Your task to perform on an android device: Search for Mexican restaurants on Maps Image 0: 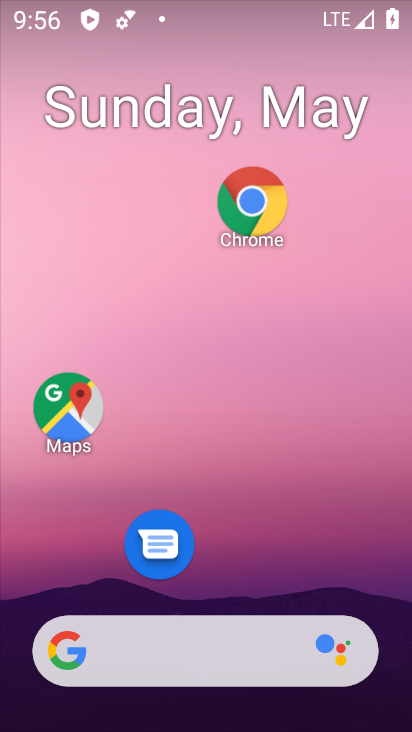
Step 0: drag from (277, 534) to (274, 28)
Your task to perform on an android device: Search for Mexican restaurants on Maps Image 1: 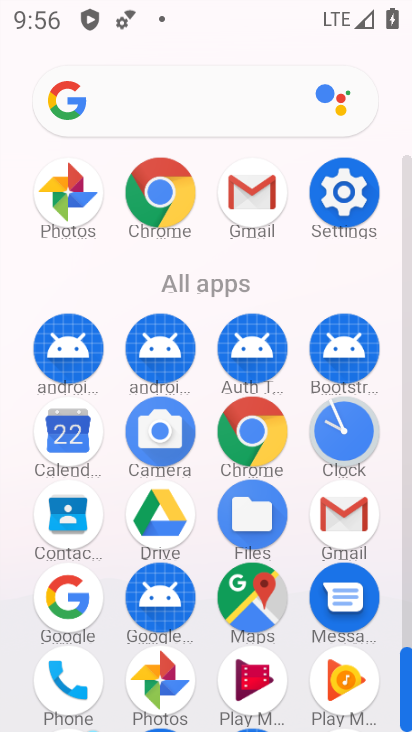
Step 1: click (252, 592)
Your task to perform on an android device: Search for Mexican restaurants on Maps Image 2: 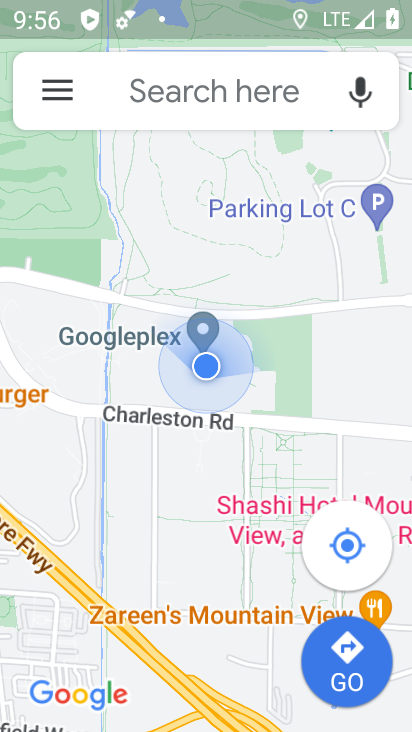
Step 2: click (193, 110)
Your task to perform on an android device: Search for Mexican restaurants on Maps Image 3: 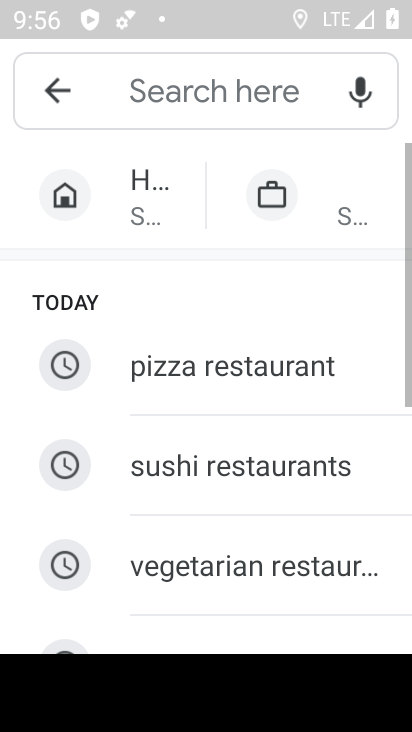
Step 3: drag from (209, 576) to (267, 174)
Your task to perform on an android device: Search for Mexican restaurants on Maps Image 4: 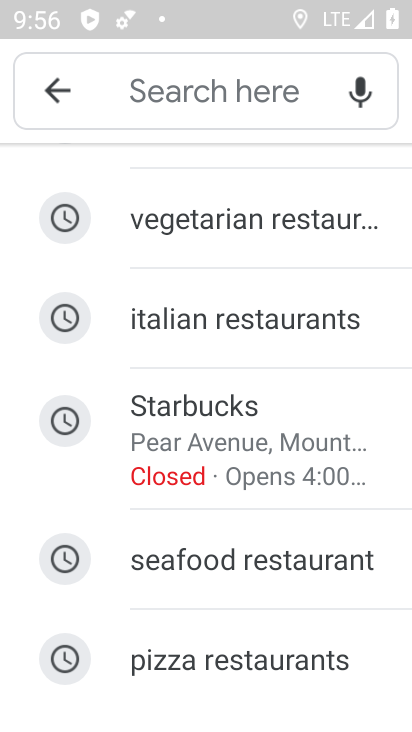
Step 4: drag from (223, 588) to (213, 200)
Your task to perform on an android device: Search for Mexican restaurants on Maps Image 5: 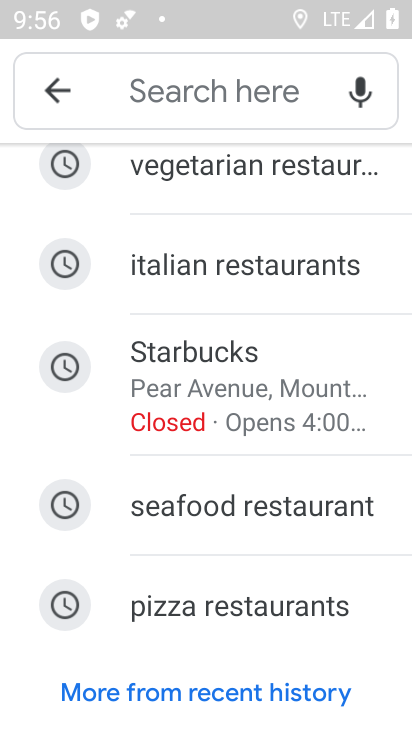
Step 5: drag from (224, 293) to (235, 626)
Your task to perform on an android device: Search for Mexican restaurants on Maps Image 6: 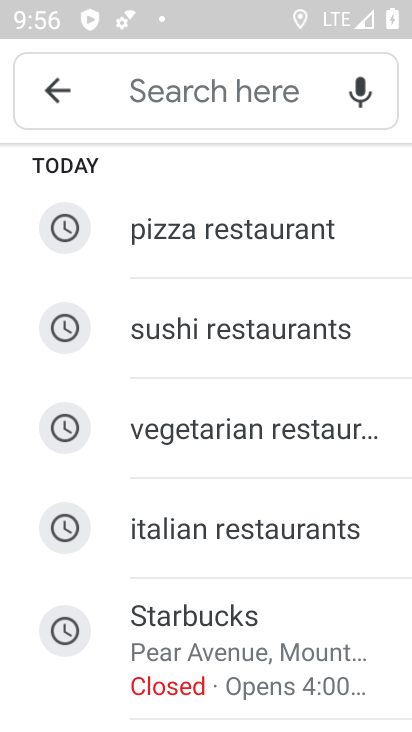
Step 6: click (151, 91)
Your task to perform on an android device: Search for Mexican restaurants on Maps Image 7: 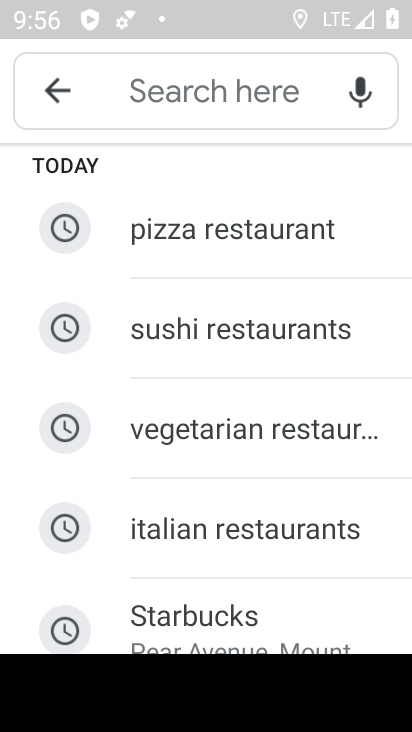
Step 7: type "mexican restaurents"
Your task to perform on an android device: Search for Mexican restaurants on Maps Image 8: 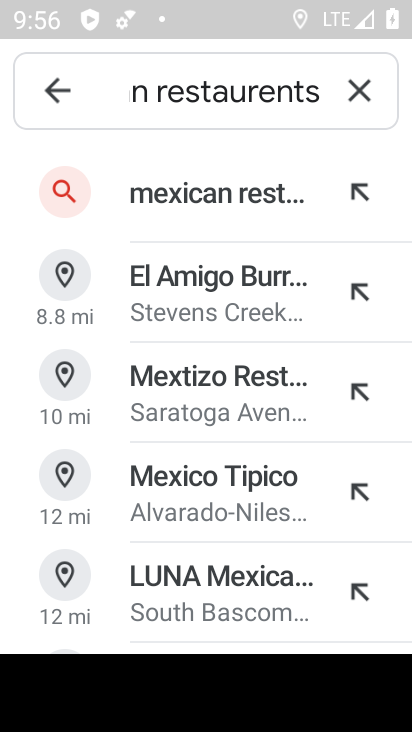
Step 8: click (139, 173)
Your task to perform on an android device: Search for Mexican restaurants on Maps Image 9: 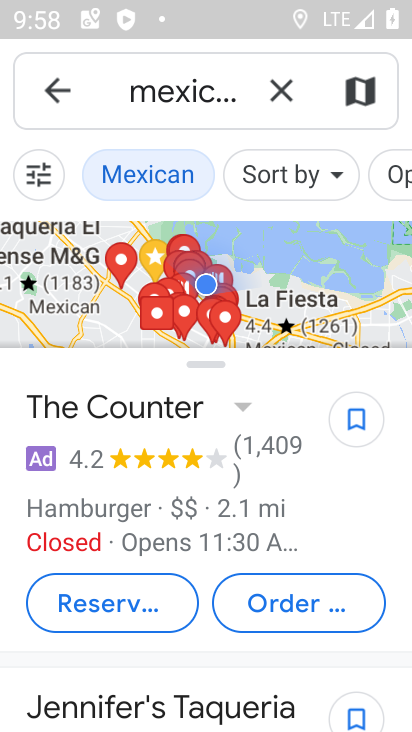
Step 9: task complete